Your task to perform on an android device: Clear the cart on amazon.com. Image 0: 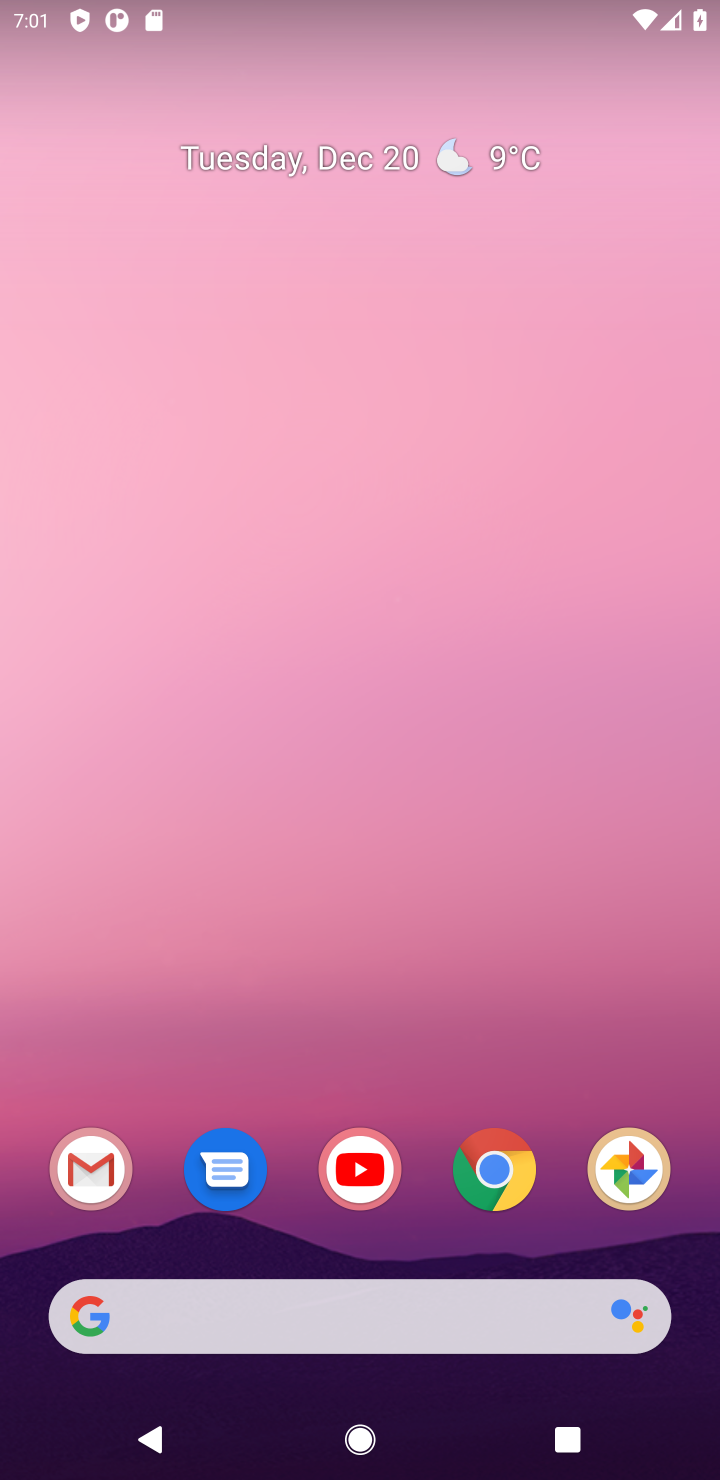
Step 0: click (461, 1179)
Your task to perform on an android device: Clear the cart on amazon.com. Image 1: 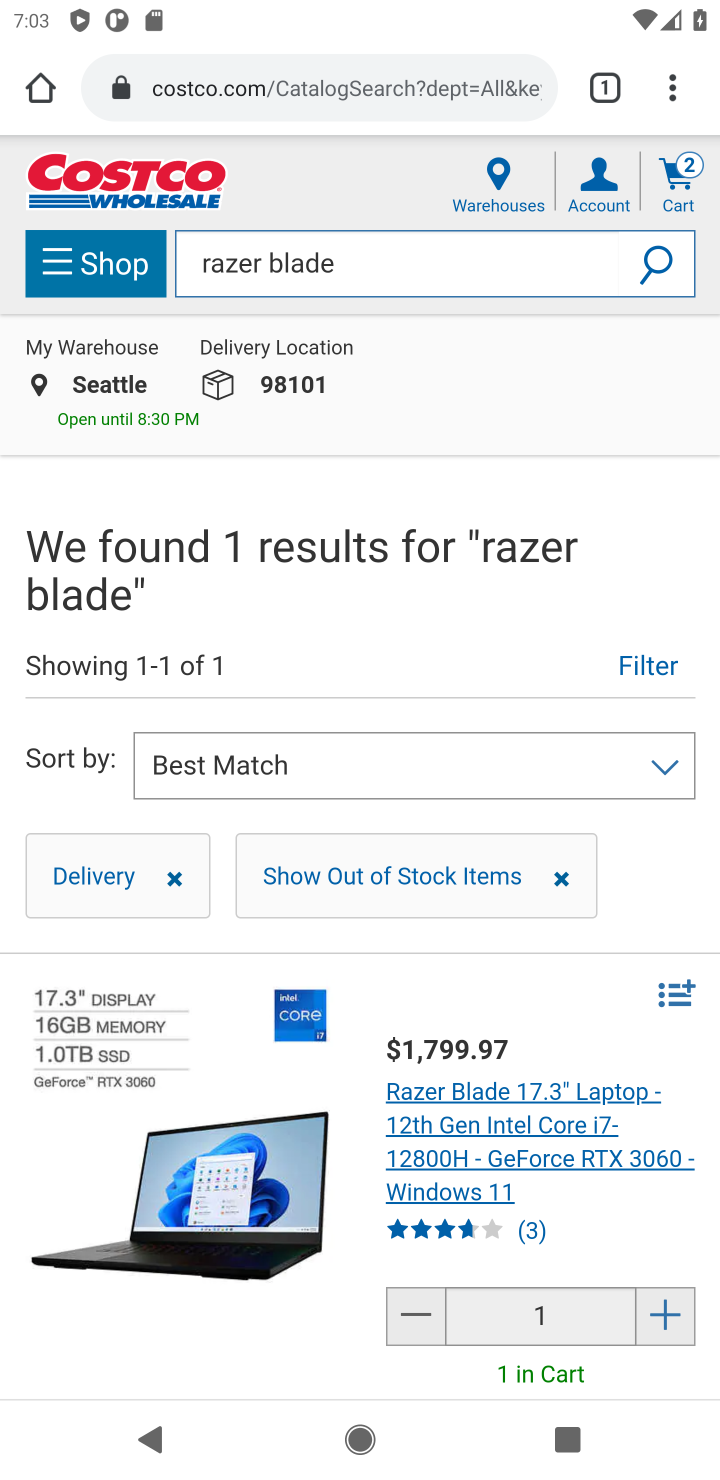
Step 1: click (289, 86)
Your task to perform on an android device: Clear the cart on amazon.com. Image 2: 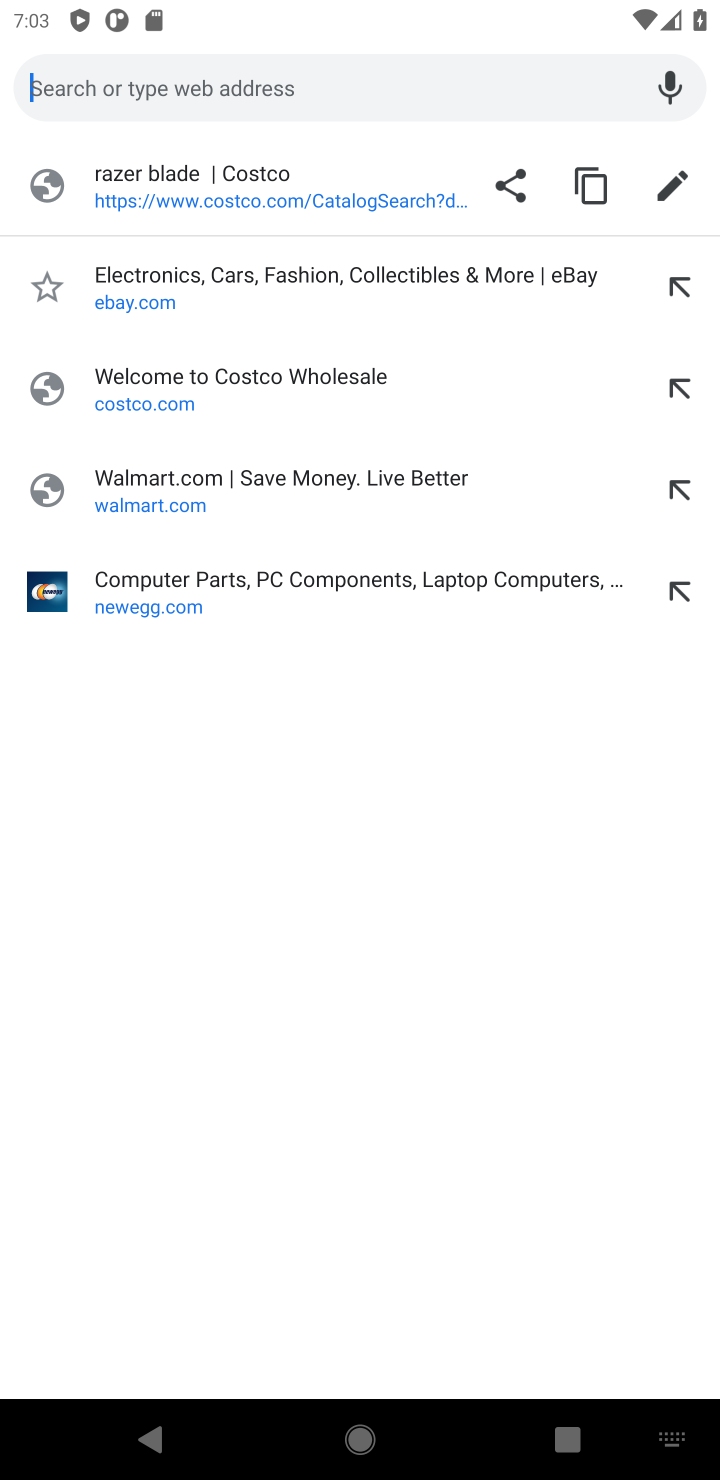
Step 2: type "amazon"
Your task to perform on an android device: Clear the cart on amazon.com. Image 3: 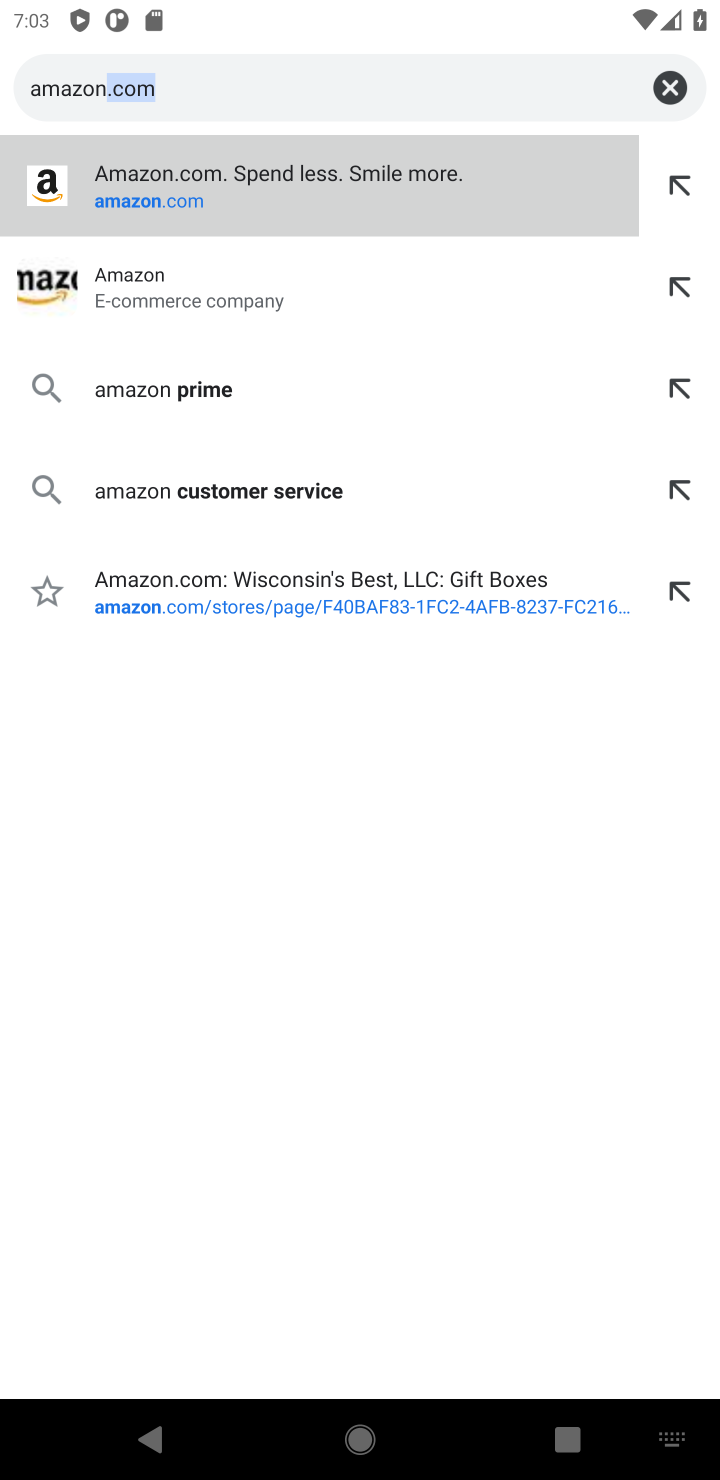
Step 3: click (228, 153)
Your task to perform on an android device: Clear the cart on amazon.com. Image 4: 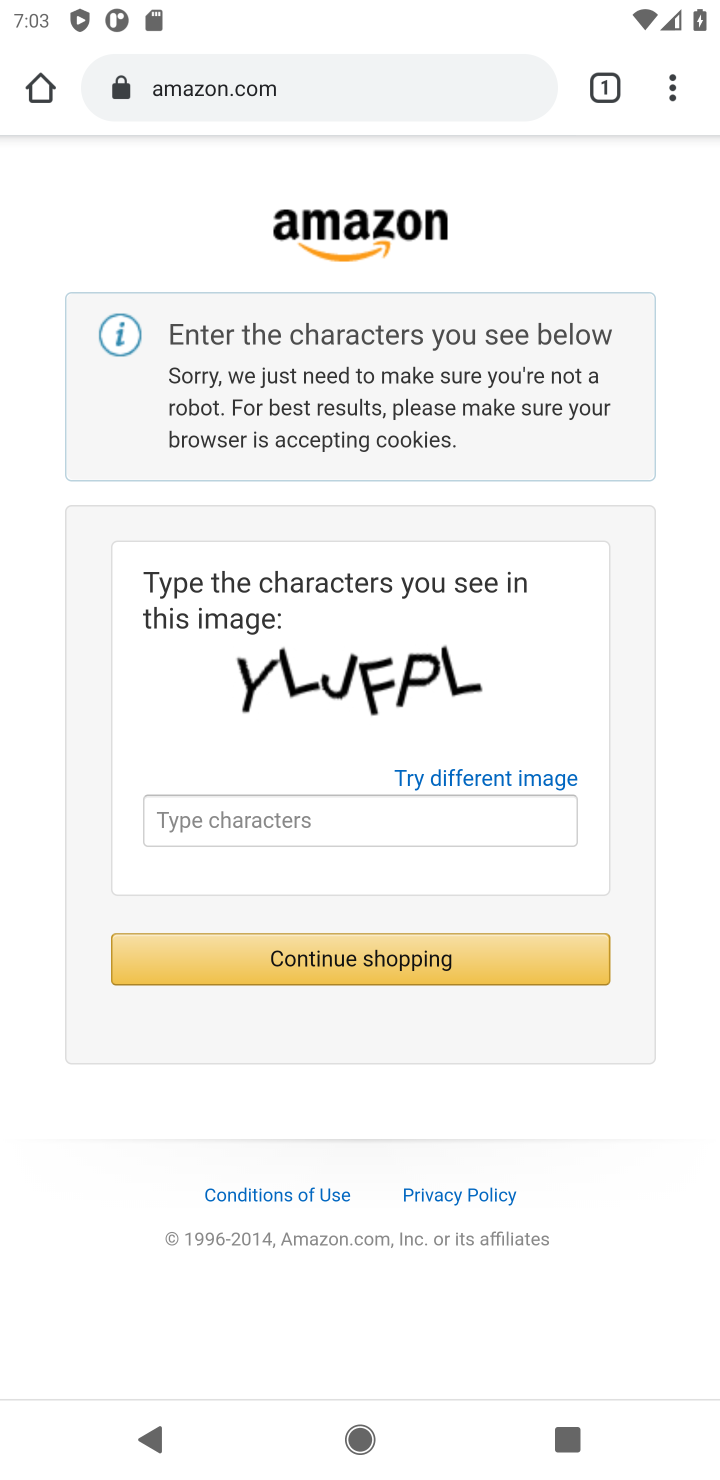
Step 4: click (272, 812)
Your task to perform on an android device: Clear the cart on amazon.com. Image 5: 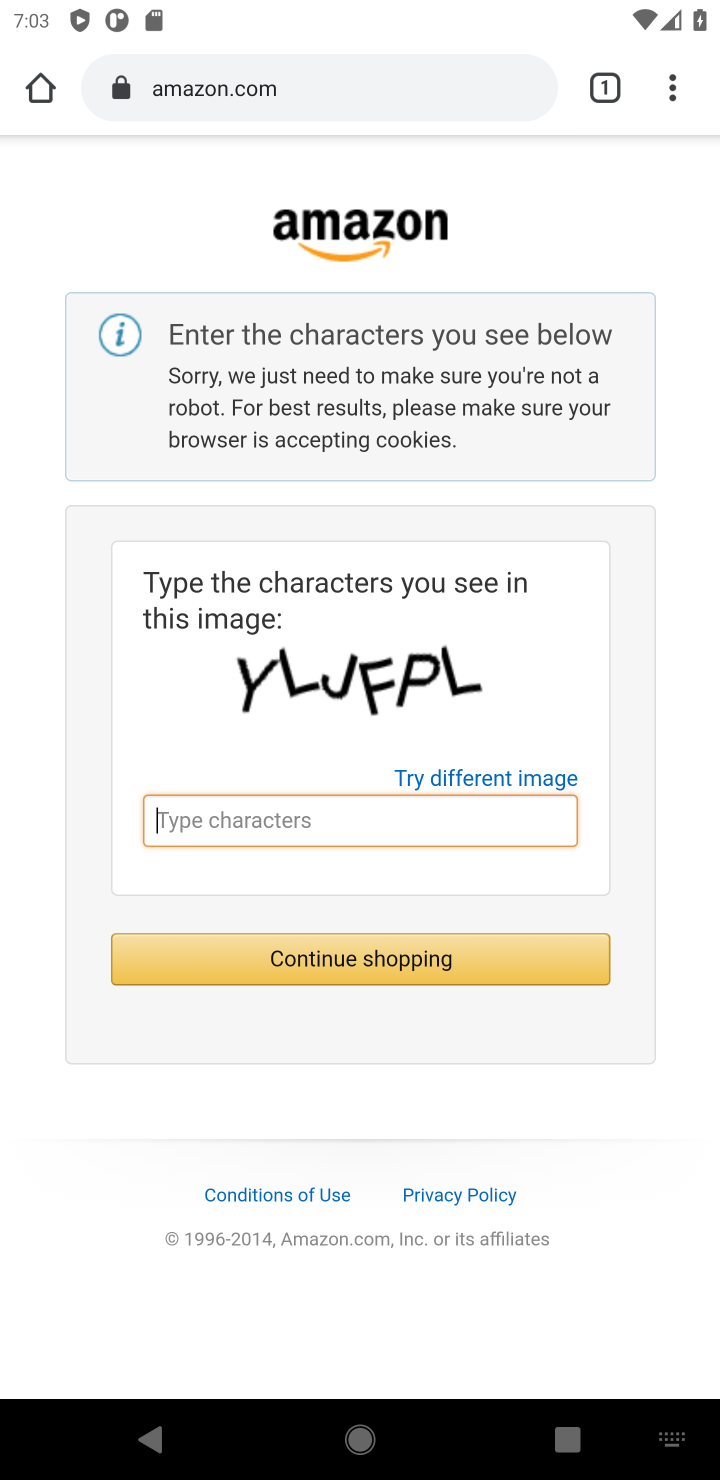
Step 5: type "YLJFPL"
Your task to perform on an android device: Clear the cart on amazon.com. Image 6: 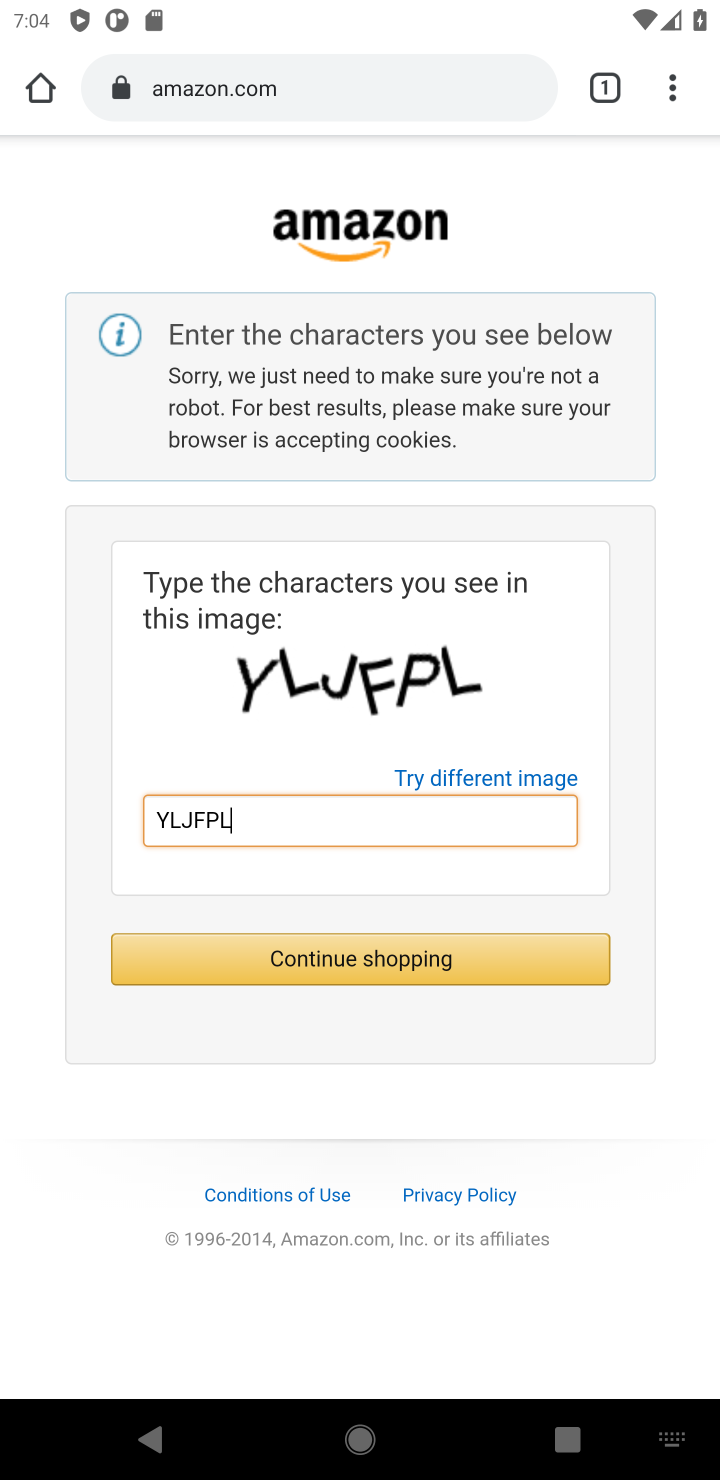
Step 6: click (413, 971)
Your task to perform on an android device: Clear the cart on amazon.com. Image 7: 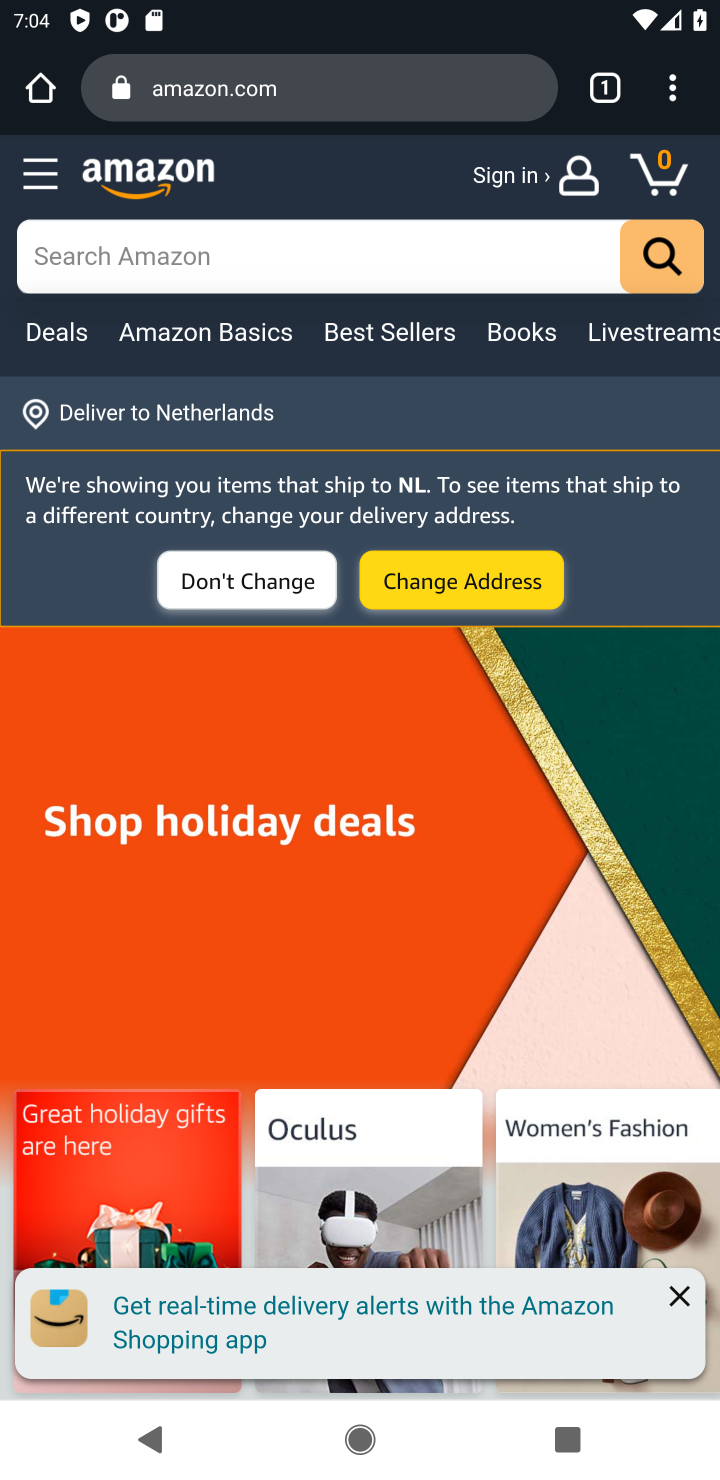
Step 7: task complete